Your task to perform on an android device: Open ESPN.com Image 0: 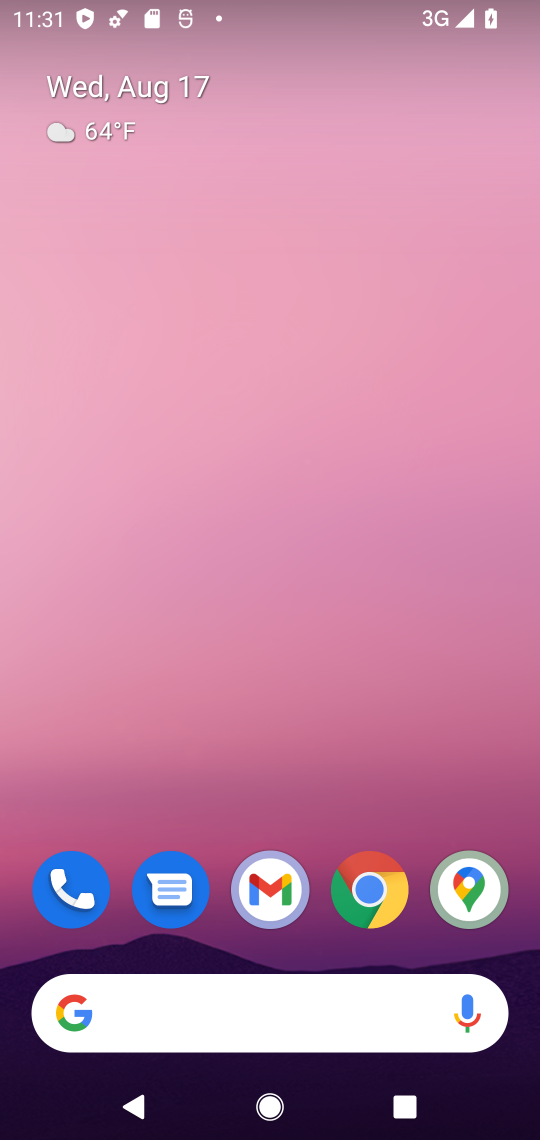
Step 0: click (363, 1012)
Your task to perform on an android device: Open ESPN.com Image 1: 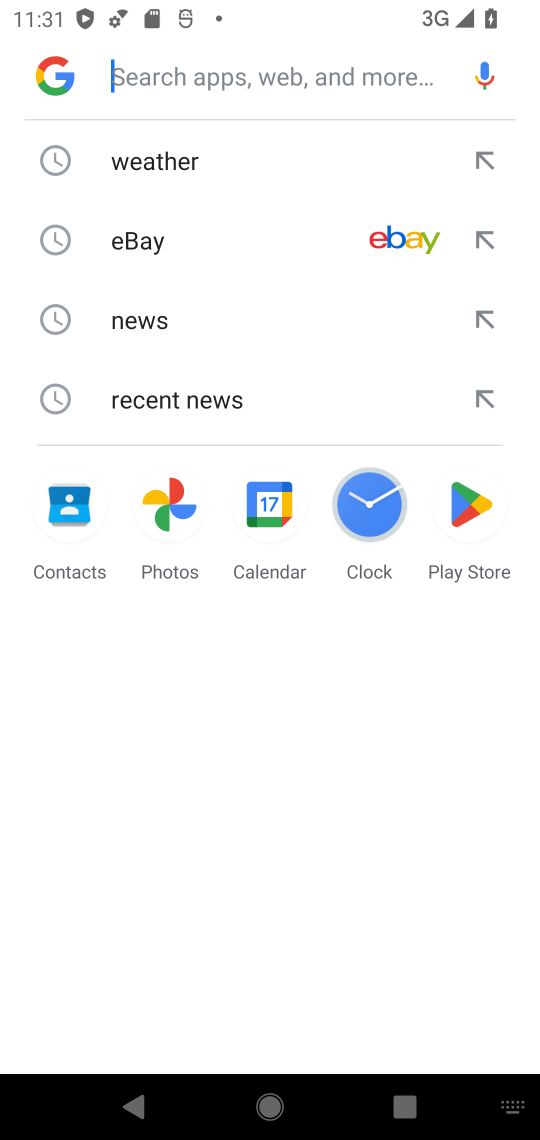
Step 1: type "espn.com"
Your task to perform on an android device: Open ESPN.com Image 2: 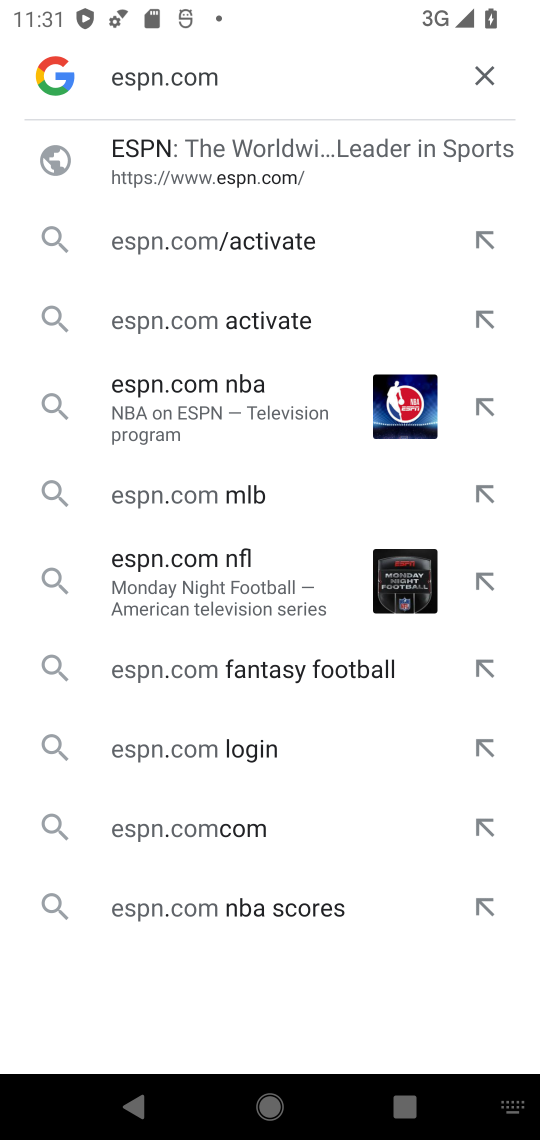
Step 2: click (269, 168)
Your task to perform on an android device: Open ESPN.com Image 3: 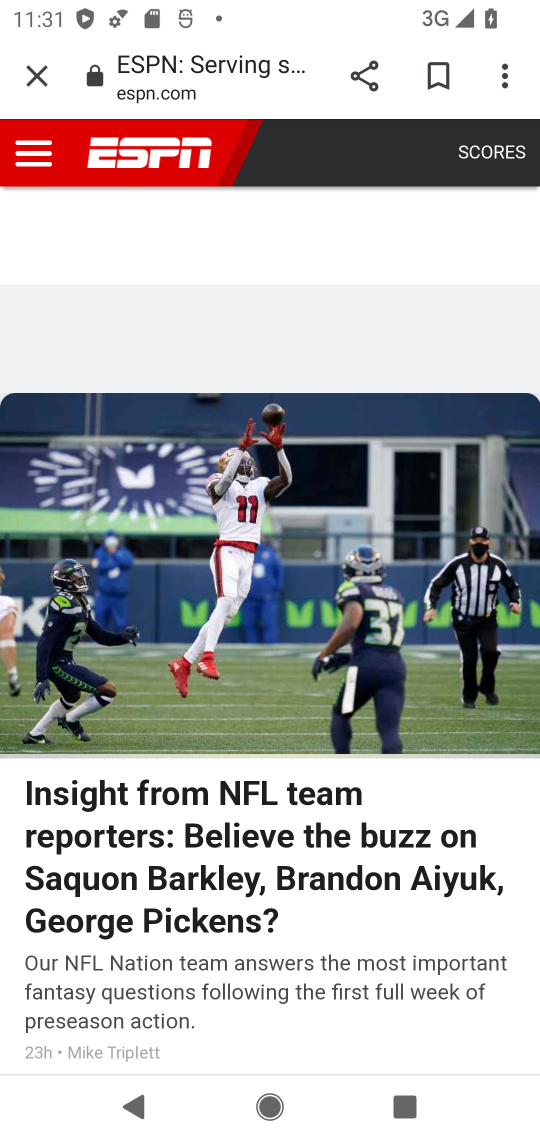
Step 3: task complete